Your task to perform on an android device: see tabs open on other devices in the chrome app Image 0: 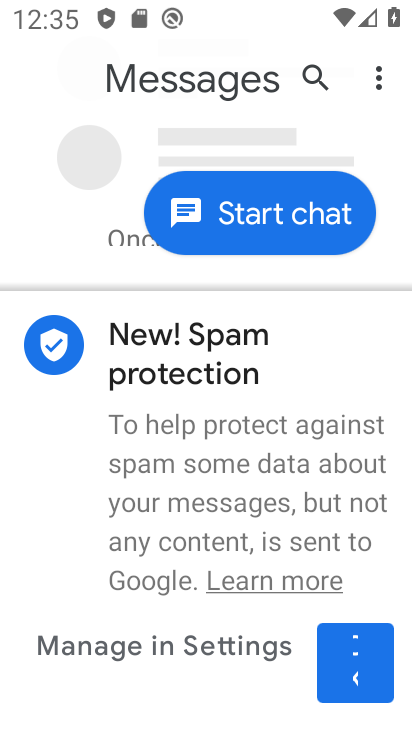
Step 0: press back button
Your task to perform on an android device: see tabs open on other devices in the chrome app Image 1: 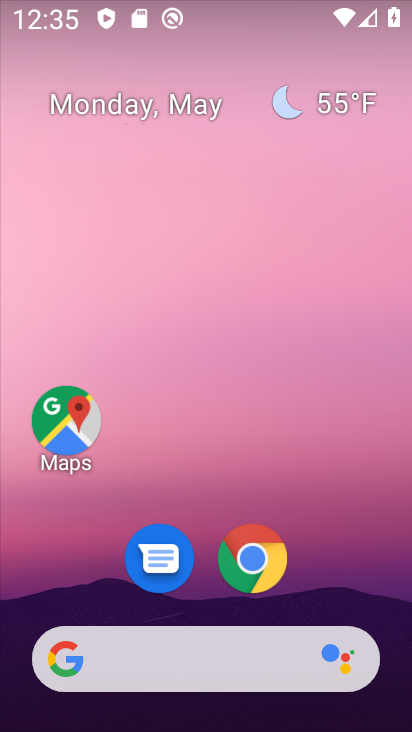
Step 1: click (256, 556)
Your task to perform on an android device: see tabs open on other devices in the chrome app Image 2: 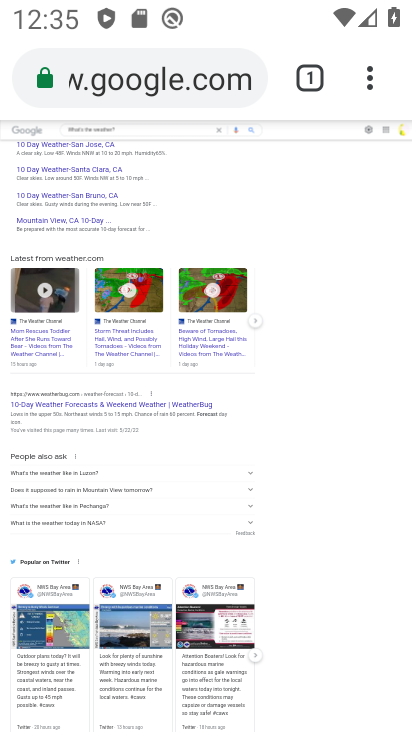
Step 2: drag from (370, 77) to (148, 609)
Your task to perform on an android device: see tabs open on other devices in the chrome app Image 3: 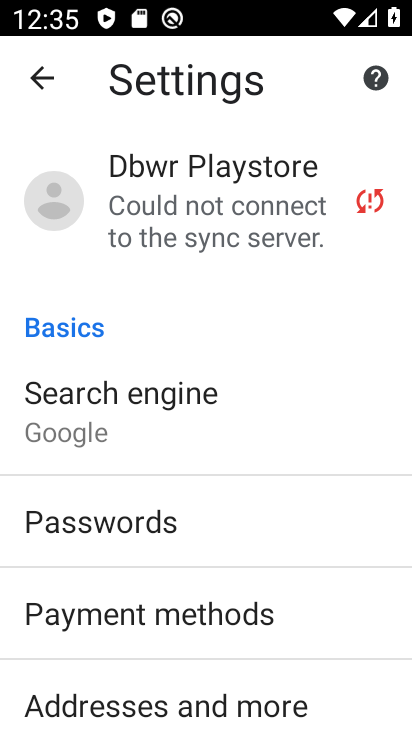
Step 3: click (25, 69)
Your task to perform on an android device: see tabs open on other devices in the chrome app Image 4: 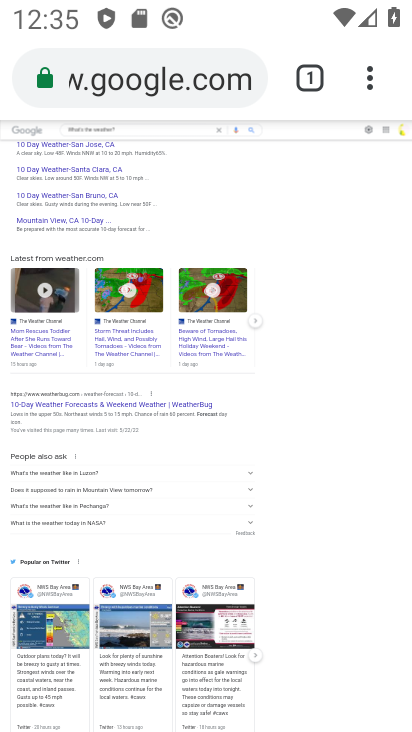
Step 4: drag from (368, 70) to (164, 350)
Your task to perform on an android device: see tabs open on other devices in the chrome app Image 5: 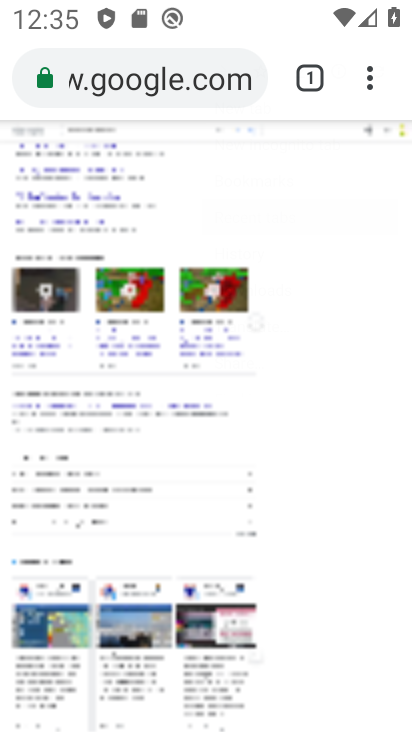
Step 5: click (164, 350)
Your task to perform on an android device: see tabs open on other devices in the chrome app Image 6: 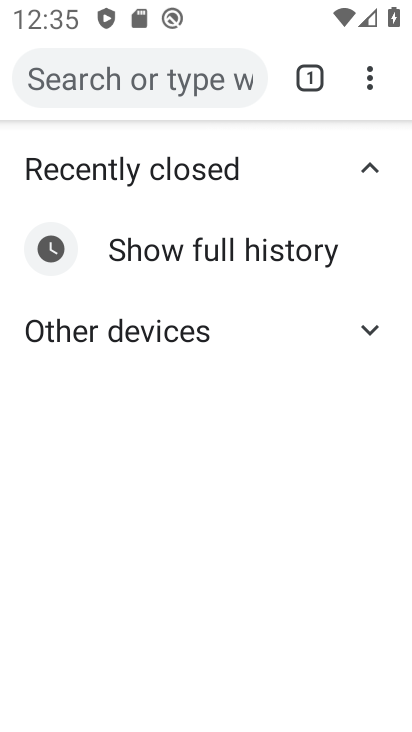
Step 6: task complete